Your task to perform on an android device: set the stopwatch Image 0: 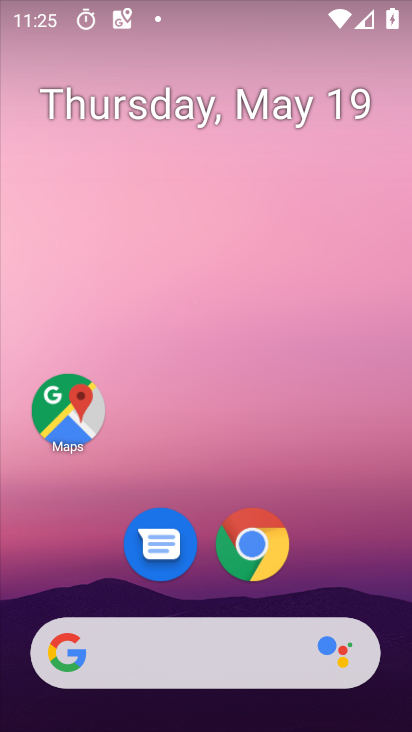
Step 0: drag from (389, 507) to (269, 1)
Your task to perform on an android device: set the stopwatch Image 1: 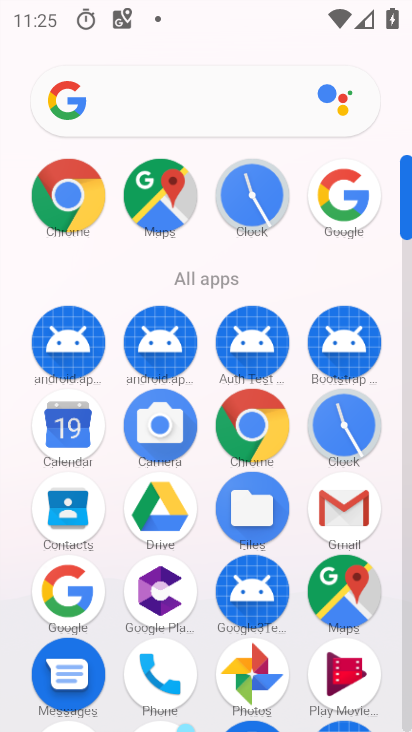
Step 1: click (268, 190)
Your task to perform on an android device: set the stopwatch Image 2: 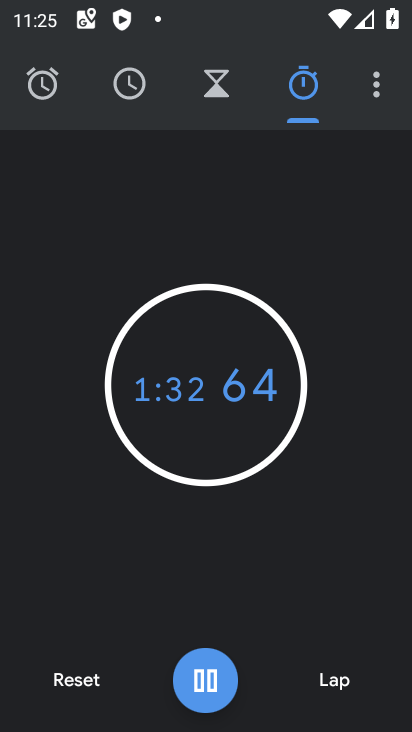
Step 2: task complete